Your task to perform on an android device: turn on translation in the chrome app Image 0: 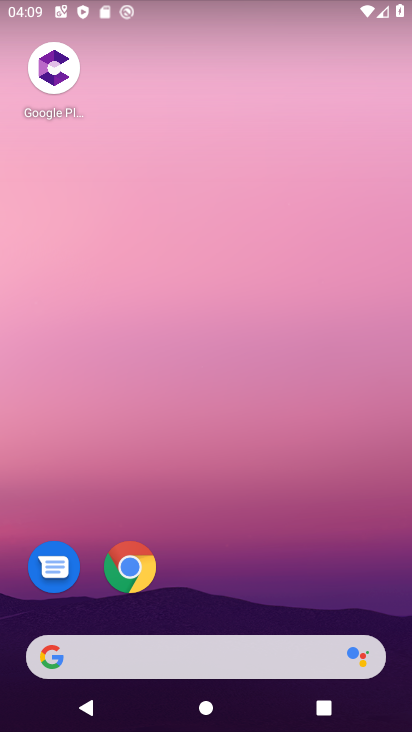
Step 0: drag from (259, 640) to (259, 49)
Your task to perform on an android device: turn on translation in the chrome app Image 1: 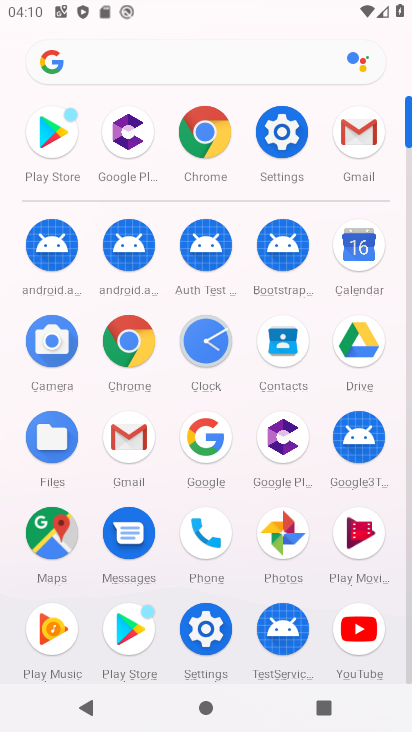
Step 1: click (141, 341)
Your task to perform on an android device: turn on translation in the chrome app Image 2: 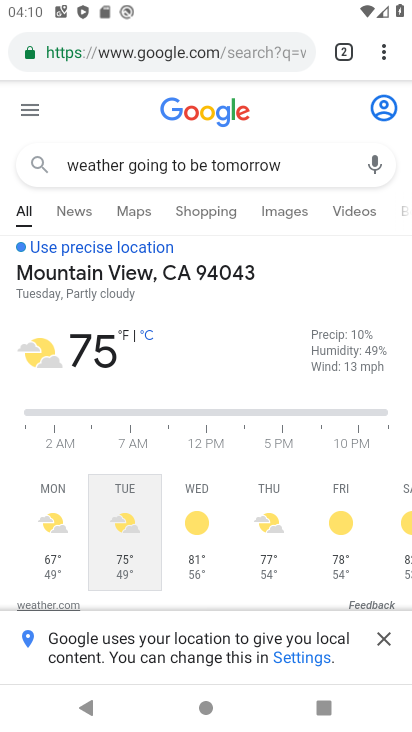
Step 2: click (381, 52)
Your task to perform on an android device: turn on translation in the chrome app Image 3: 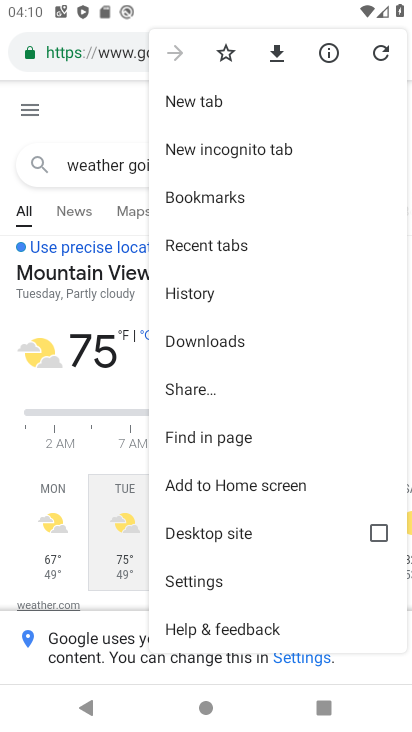
Step 3: click (203, 585)
Your task to perform on an android device: turn on translation in the chrome app Image 4: 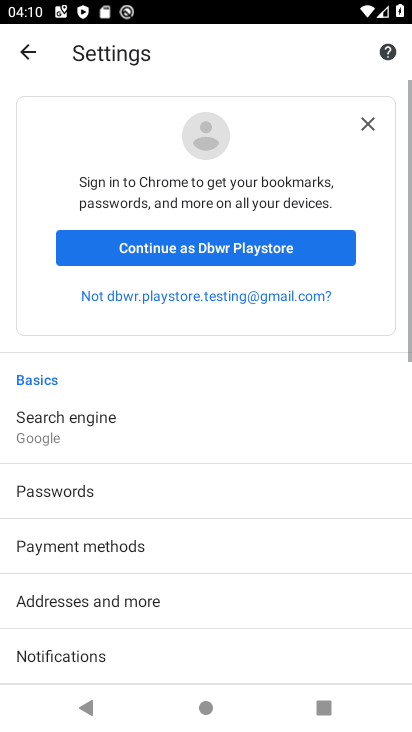
Step 4: drag from (146, 551) to (257, 81)
Your task to perform on an android device: turn on translation in the chrome app Image 5: 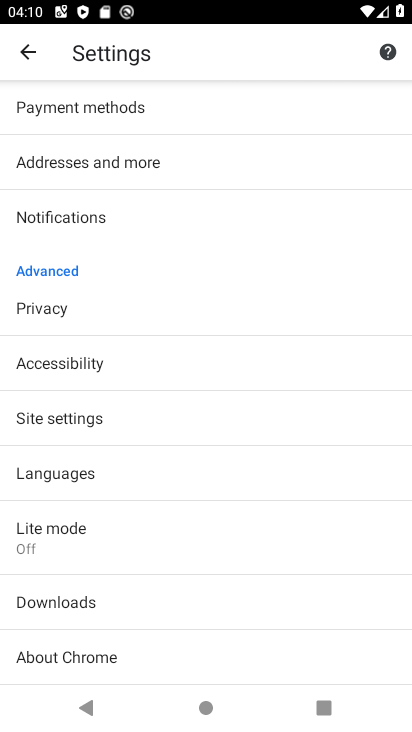
Step 5: click (122, 476)
Your task to perform on an android device: turn on translation in the chrome app Image 6: 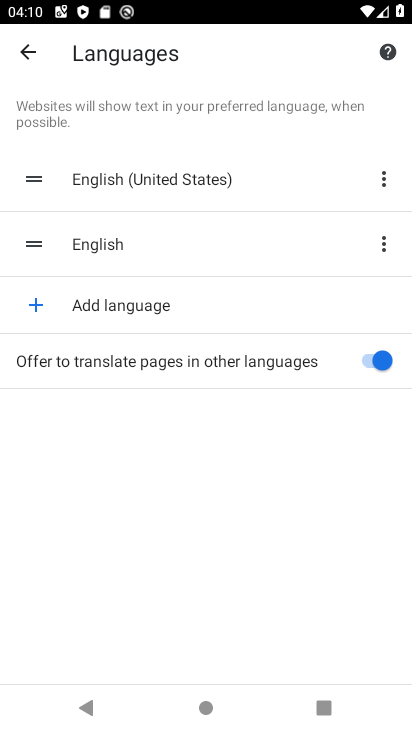
Step 6: task complete